Your task to perform on an android device: add a contact Image 0: 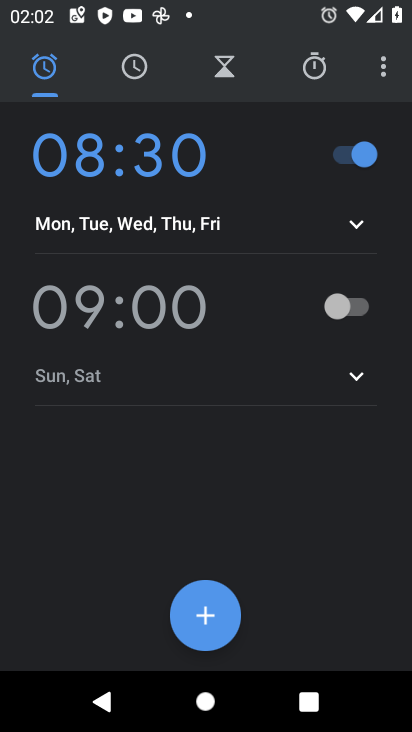
Step 0: press home button
Your task to perform on an android device: add a contact Image 1: 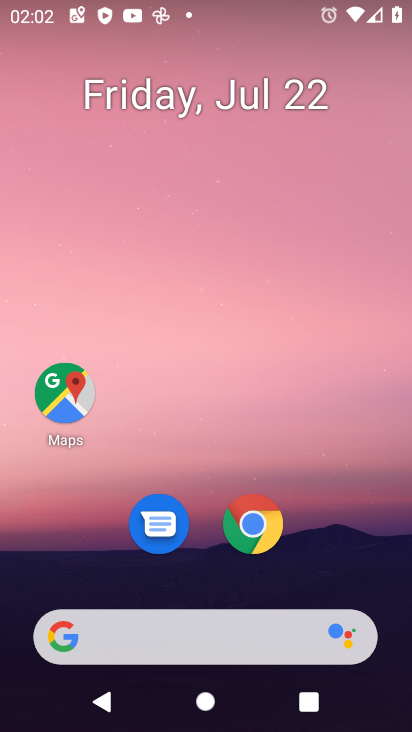
Step 1: drag from (239, 651) to (302, 111)
Your task to perform on an android device: add a contact Image 2: 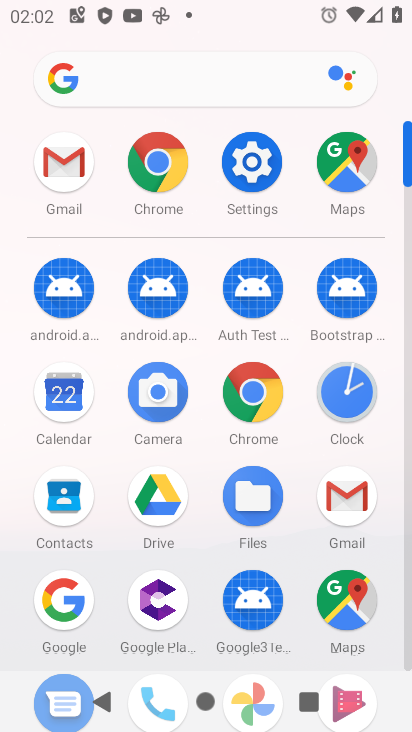
Step 2: drag from (195, 612) to (188, 167)
Your task to perform on an android device: add a contact Image 3: 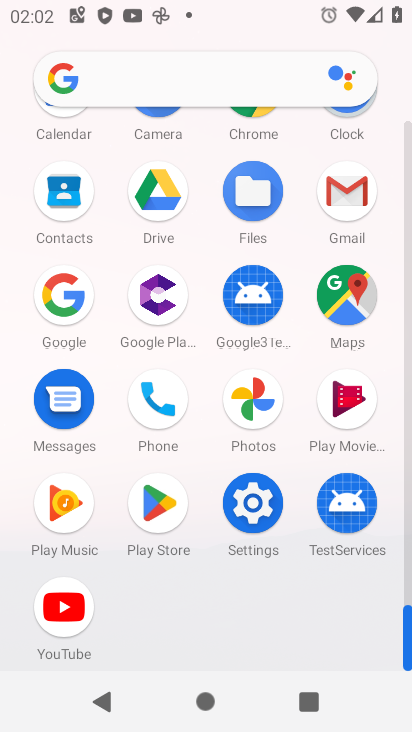
Step 3: click (60, 201)
Your task to perform on an android device: add a contact Image 4: 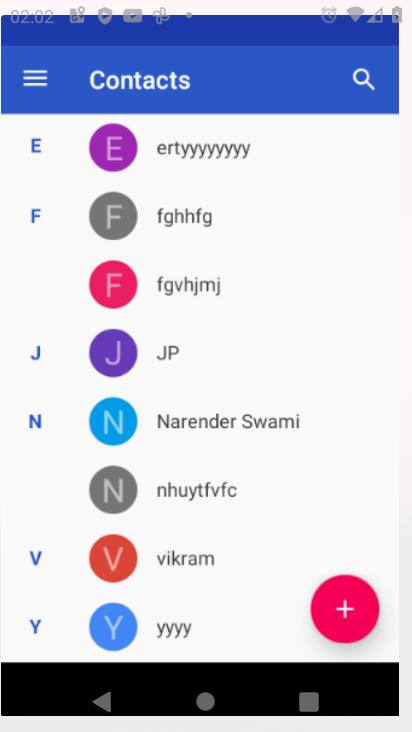
Step 4: click (60, 202)
Your task to perform on an android device: add a contact Image 5: 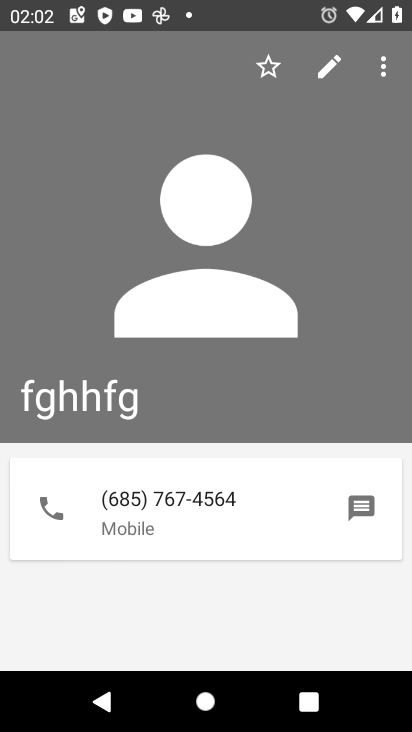
Step 5: press back button
Your task to perform on an android device: add a contact Image 6: 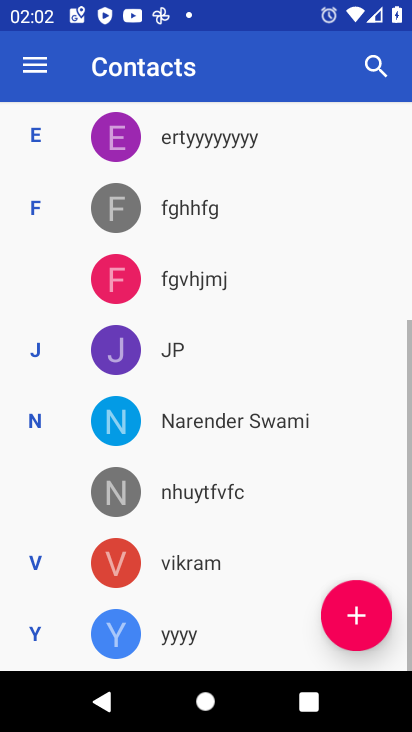
Step 6: click (351, 631)
Your task to perform on an android device: add a contact Image 7: 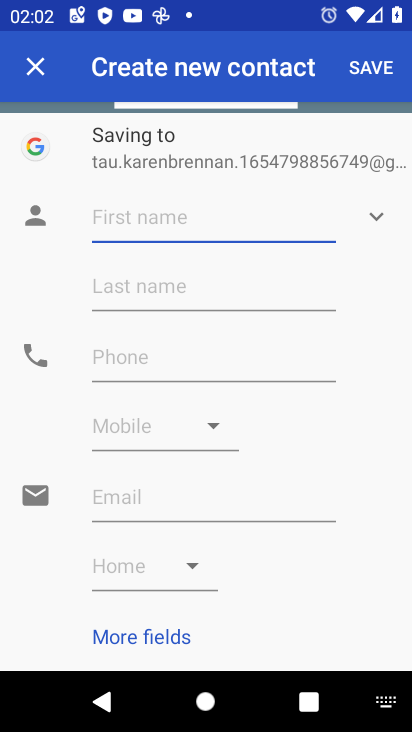
Step 7: click (88, 214)
Your task to perform on an android device: add a contact Image 8: 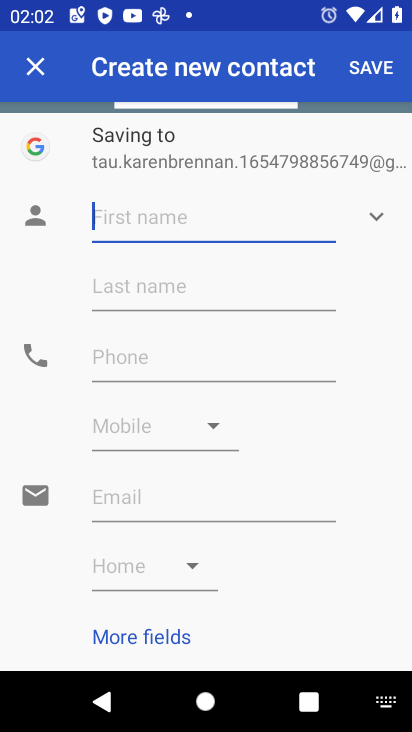
Step 8: type "enfuythg"
Your task to perform on an android device: add a contact Image 9: 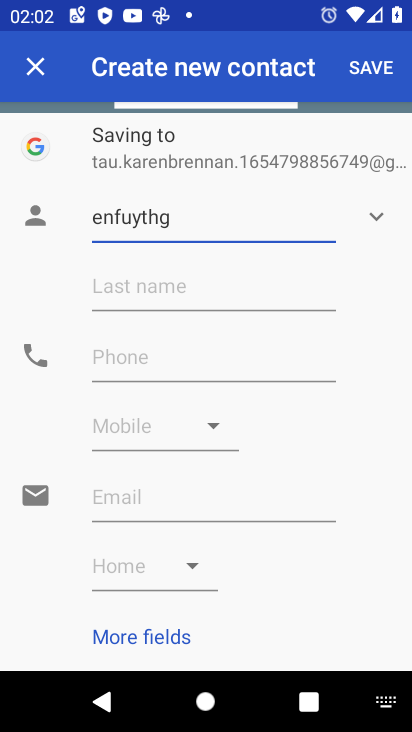
Step 9: click (115, 339)
Your task to perform on an android device: add a contact Image 10: 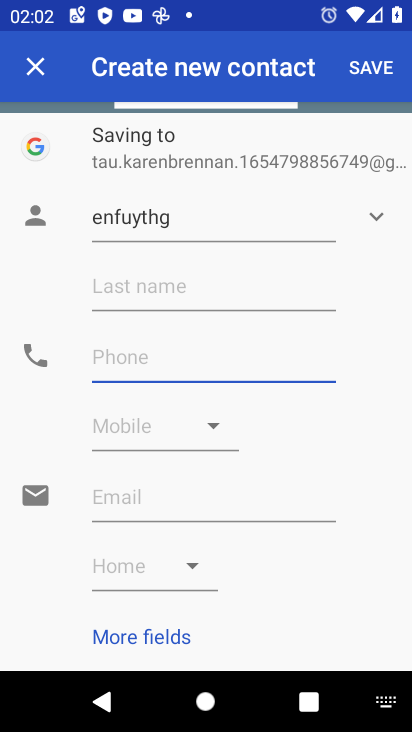
Step 10: type "109345"
Your task to perform on an android device: add a contact Image 11: 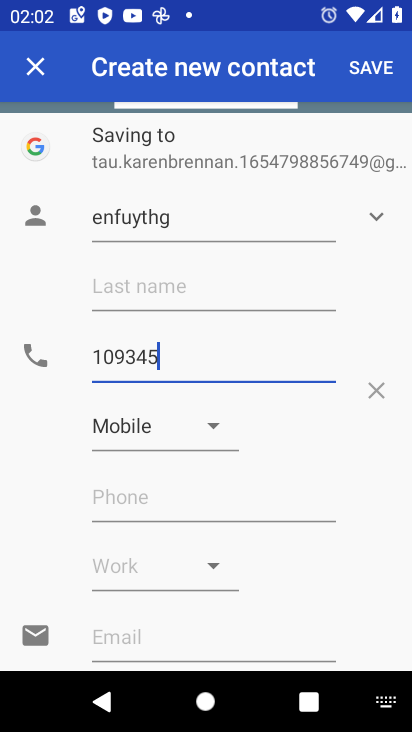
Step 11: click (378, 67)
Your task to perform on an android device: add a contact Image 12: 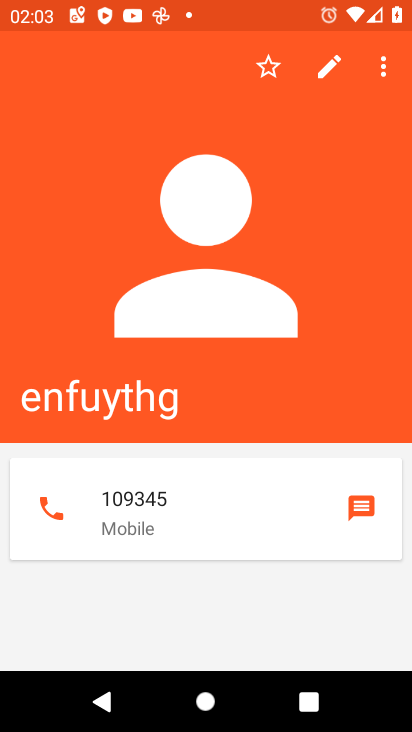
Step 12: task complete